Your task to perform on an android device: check storage Image 0: 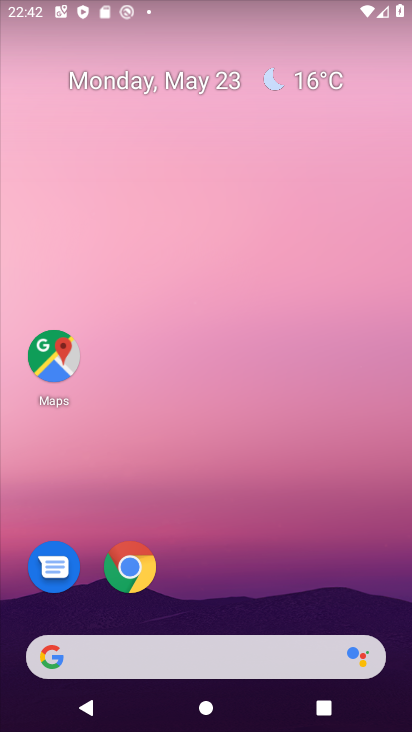
Step 0: click (247, 2)
Your task to perform on an android device: check storage Image 1: 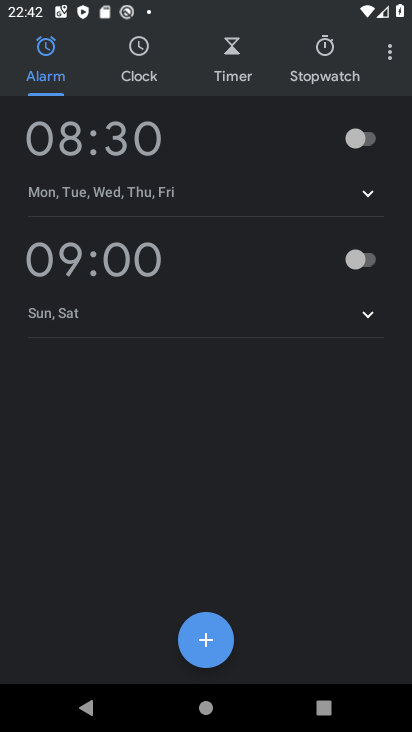
Step 1: press home button
Your task to perform on an android device: check storage Image 2: 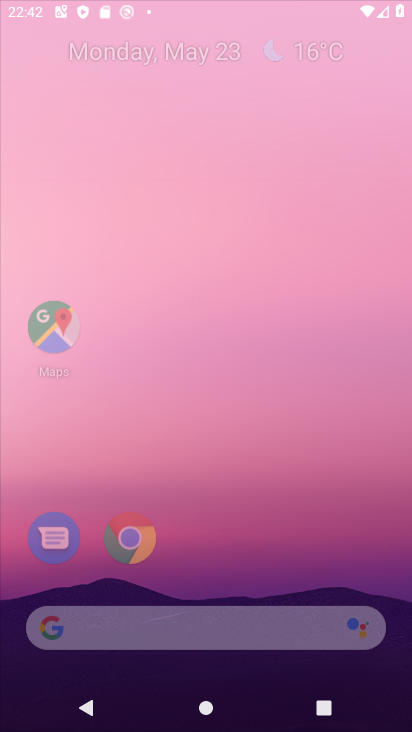
Step 2: drag from (182, 520) to (245, 82)
Your task to perform on an android device: check storage Image 3: 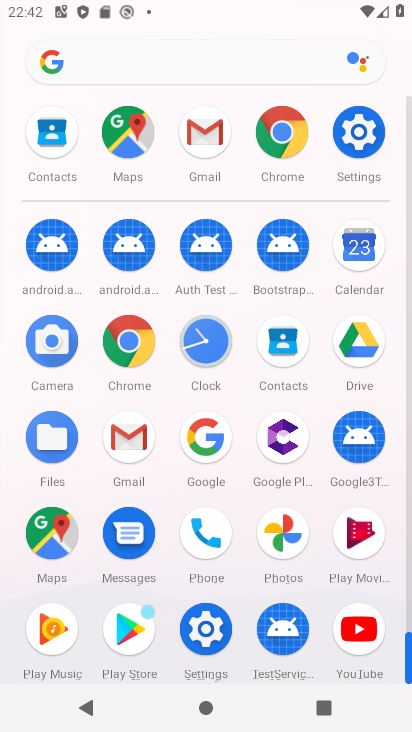
Step 3: click (364, 138)
Your task to perform on an android device: check storage Image 4: 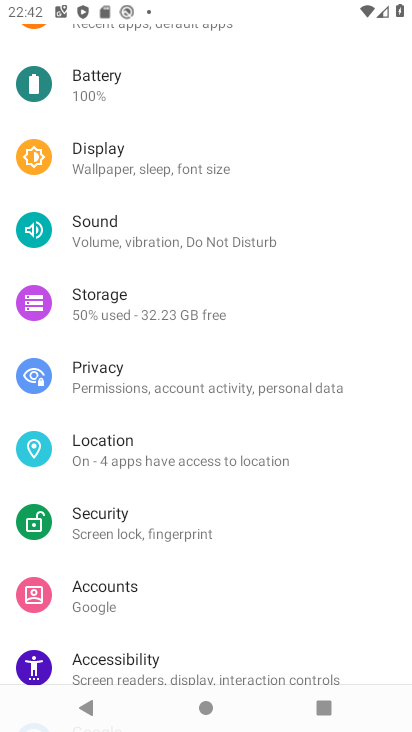
Step 4: click (139, 304)
Your task to perform on an android device: check storage Image 5: 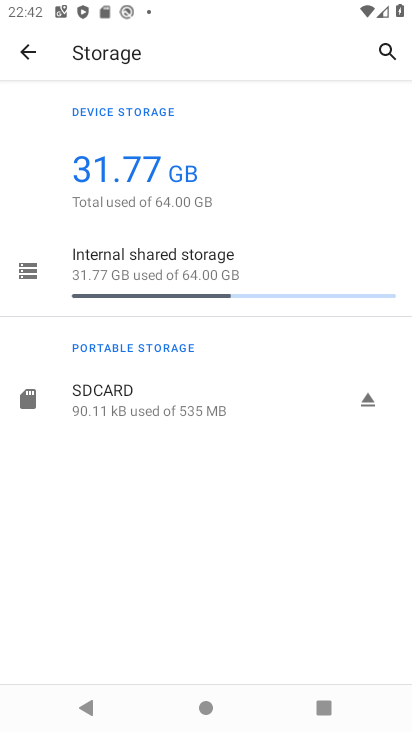
Step 5: task complete